Your task to perform on an android device: Open Google Chrome and click the shortcut for Amazon.com Image 0: 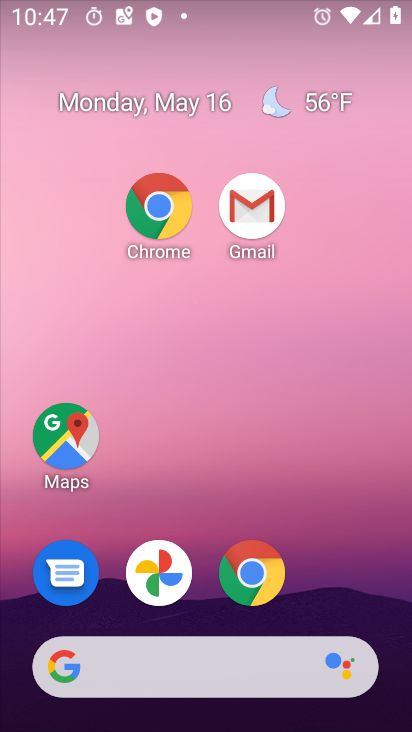
Step 0: drag from (364, 643) to (251, 0)
Your task to perform on an android device: Open Google Chrome and click the shortcut for Amazon.com Image 1: 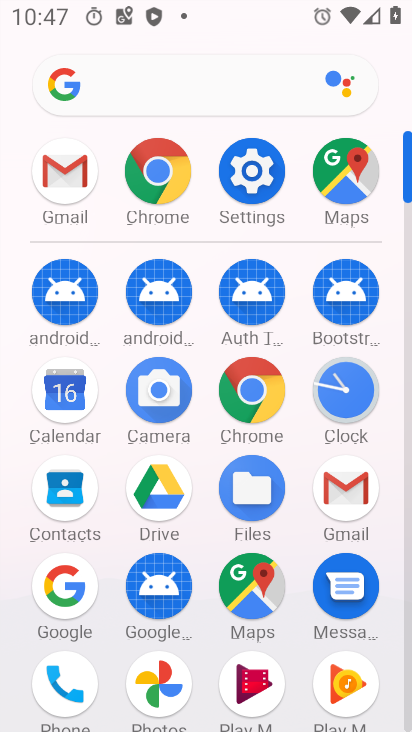
Step 1: click (145, 127)
Your task to perform on an android device: Open Google Chrome and click the shortcut for Amazon.com Image 2: 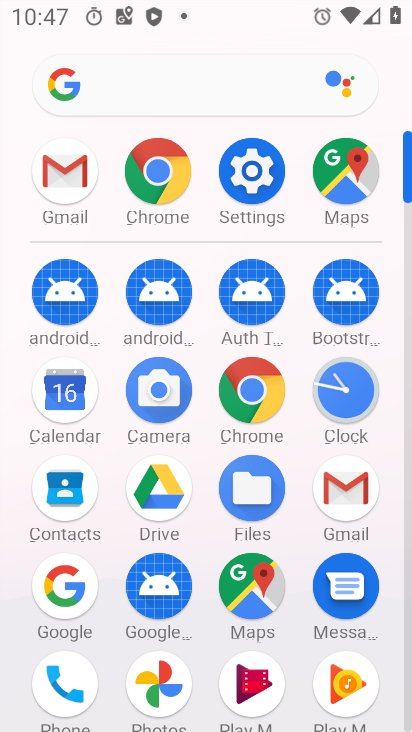
Step 2: click (143, 161)
Your task to perform on an android device: Open Google Chrome and click the shortcut for Amazon.com Image 3: 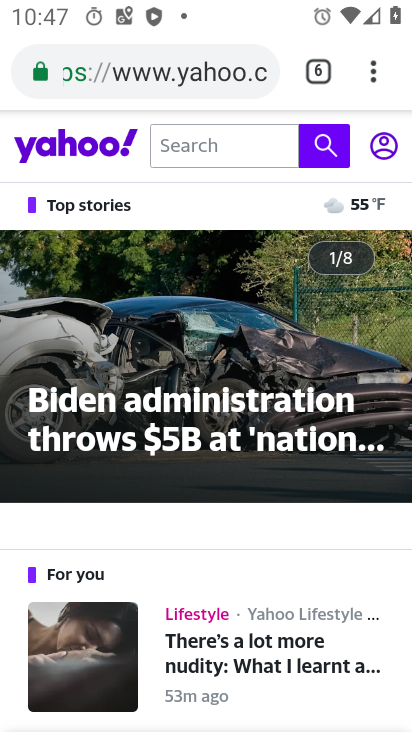
Step 3: drag from (372, 69) to (118, 139)
Your task to perform on an android device: Open Google Chrome and click the shortcut for Amazon.com Image 4: 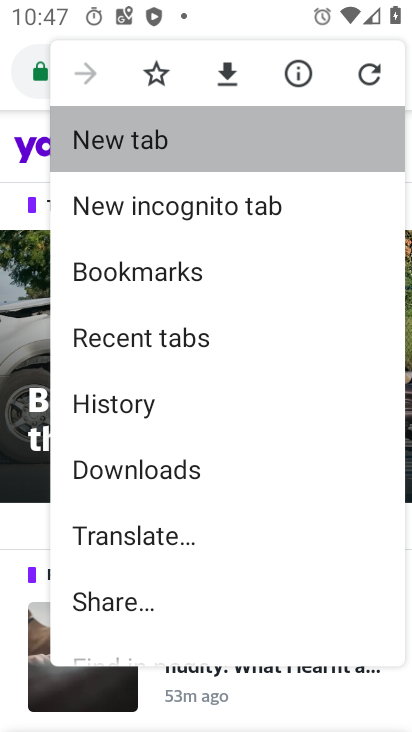
Step 4: click (119, 138)
Your task to perform on an android device: Open Google Chrome and click the shortcut for Amazon.com Image 5: 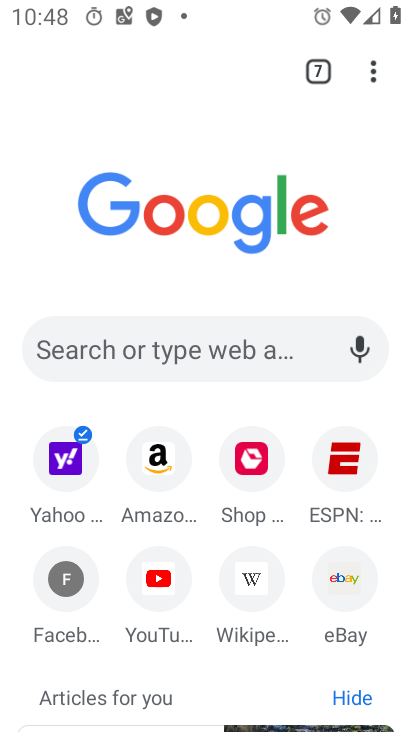
Step 5: click (166, 464)
Your task to perform on an android device: Open Google Chrome and click the shortcut for Amazon.com Image 6: 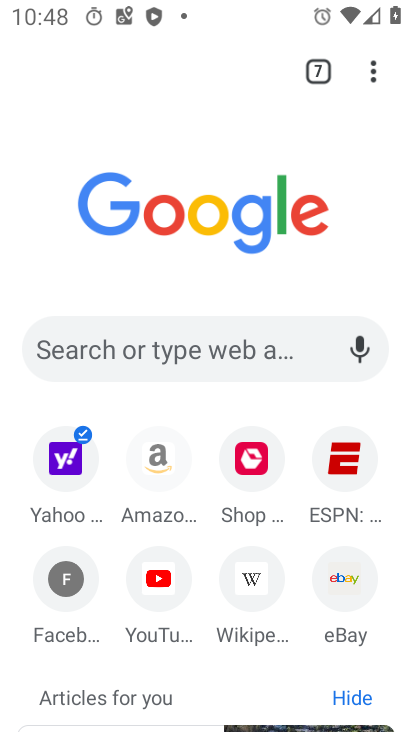
Step 6: click (168, 462)
Your task to perform on an android device: Open Google Chrome and click the shortcut for Amazon.com Image 7: 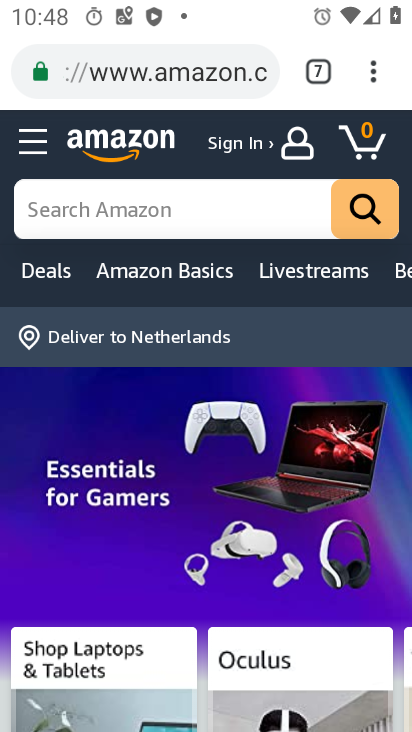
Step 7: task complete